Your task to perform on an android device: clear all cookies in the chrome app Image 0: 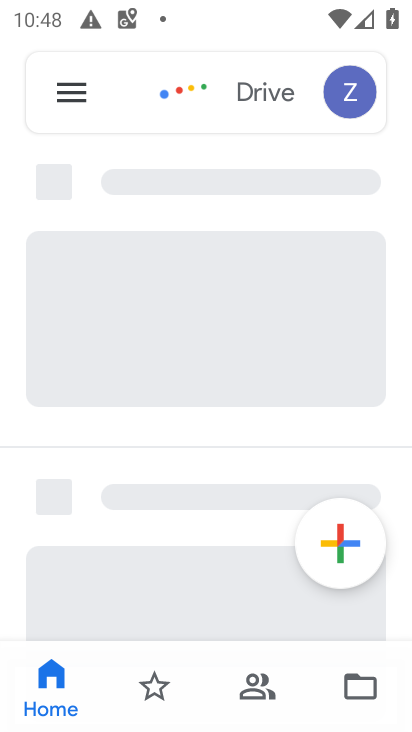
Step 0: press home button
Your task to perform on an android device: clear all cookies in the chrome app Image 1: 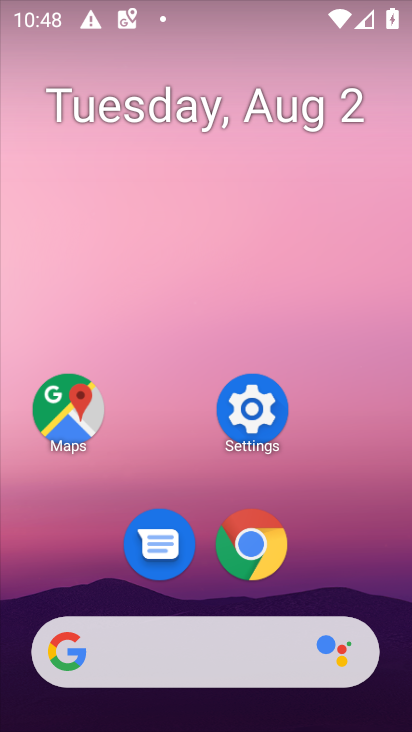
Step 1: click (261, 557)
Your task to perform on an android device: clear all cookies in the chrome app Image 2: 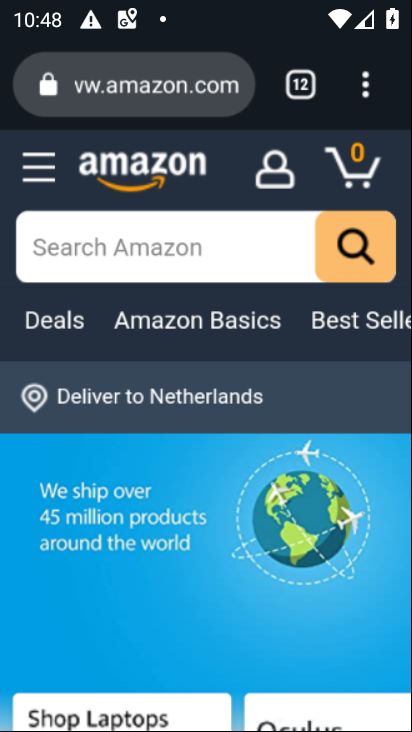
Step 2: drag from (366, 87) to (203, 578)
Your task to perform on an android device: clear all cookies in the chrome app Image 3: 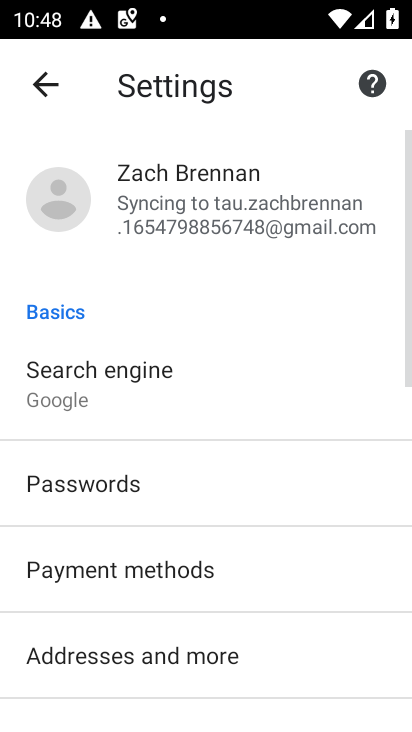
Step 3: drag from (240, 604) to (356, 6)
Your task to perform on an android device: clear all cookies in the chrome app Image 4: 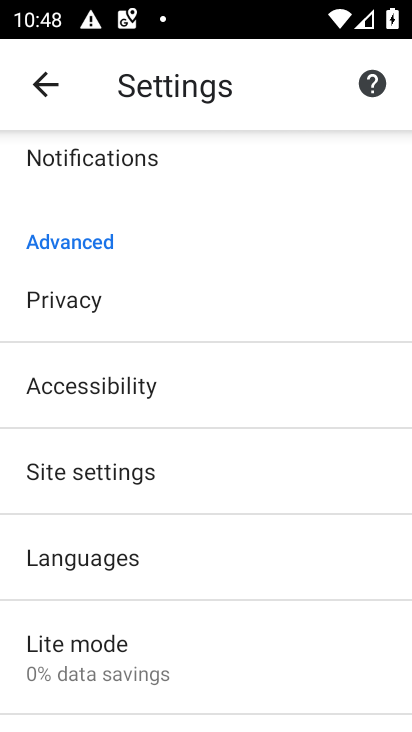
Step 4: click (98, 306)
Your task to perform on an android device: clear all cookies in the chrome app Image 5: 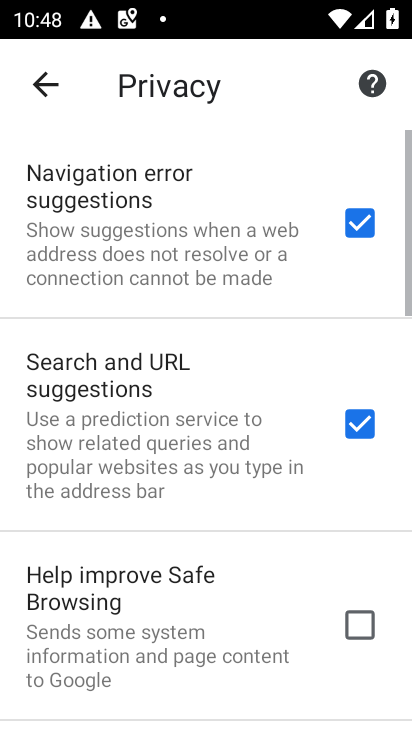
Step 5: drag from (214, 669) to (278, 126)
Your task to perform on an android device: clear all cookies in the chrome app Image 6: 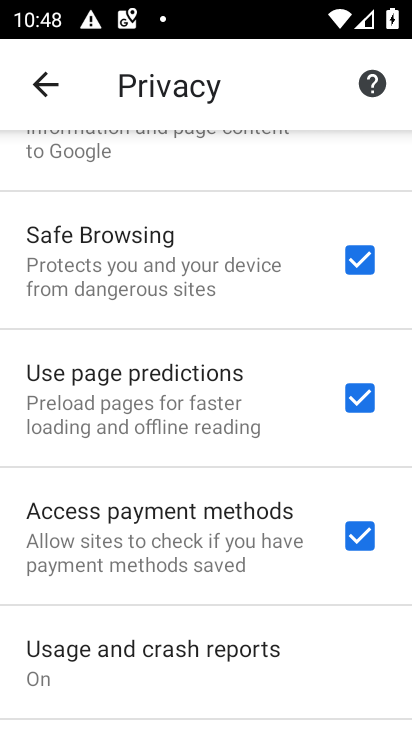
Step 6: drag from (252, 666) to (331, 179)
Your task to perform on an android device: clear all cookies in the chrome app Image 7: 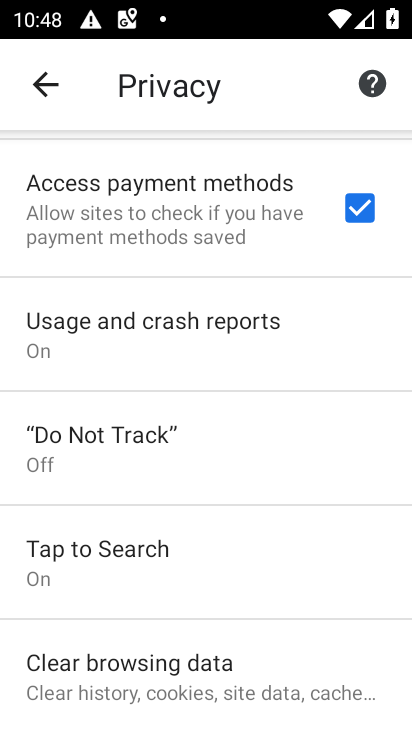
Step 7: drag from (295, 658) to (358, 218)
Your task to perform on an android device: clear all cookies in the chrome app Image 8: 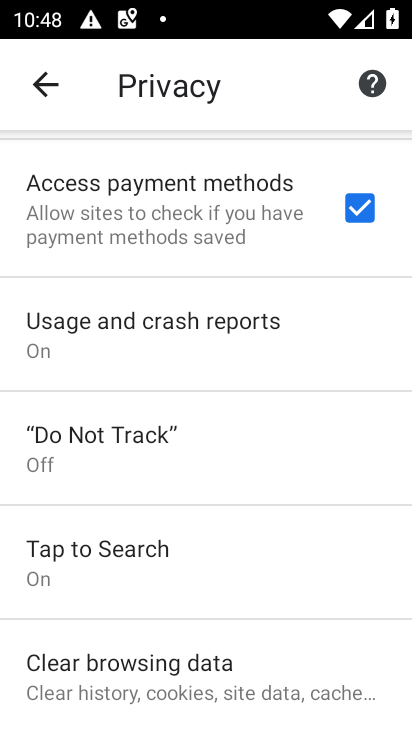
Step 8: click (201, 666)
Your task to perform on an android device: clear all cookies in the chrome app Image 9: 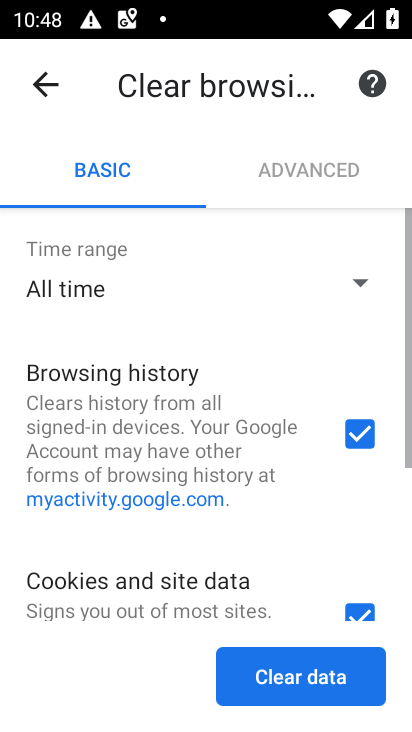
Step 9: click (366, 429)
Your task to perform on an android device: clear all cookies in the chrome app Image 10: 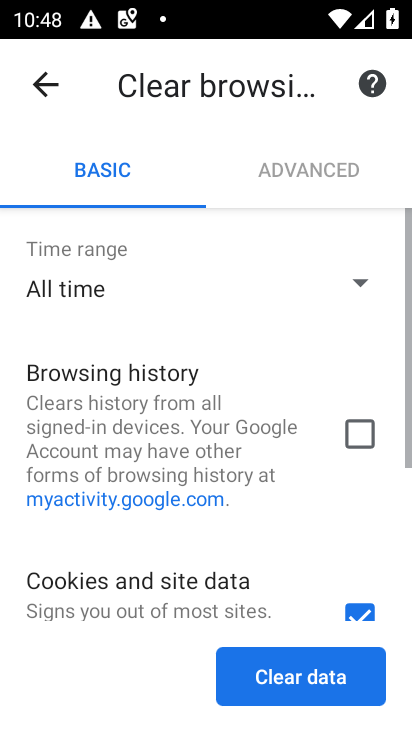
Step 10: drag from (261, 548) to (399, 163)
Your task to perform on an android device: clear all cookies in the chrome app Image 11: 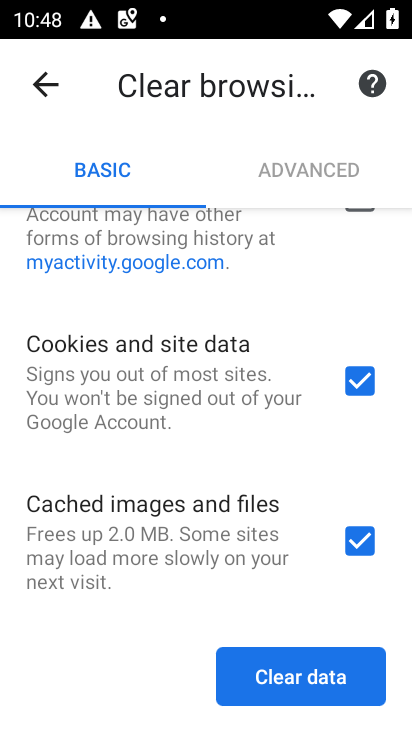
Step 11: click (347, 542)
Your task to perform on an android device: clear all cookies in the chrome app Image 12: 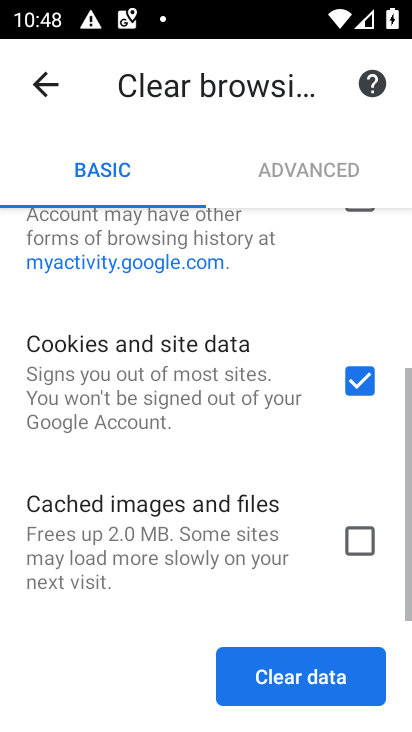
Step 12: click (310, 683)
Your task to perform on an android device: clear all cookies in the chrome app Image 13: 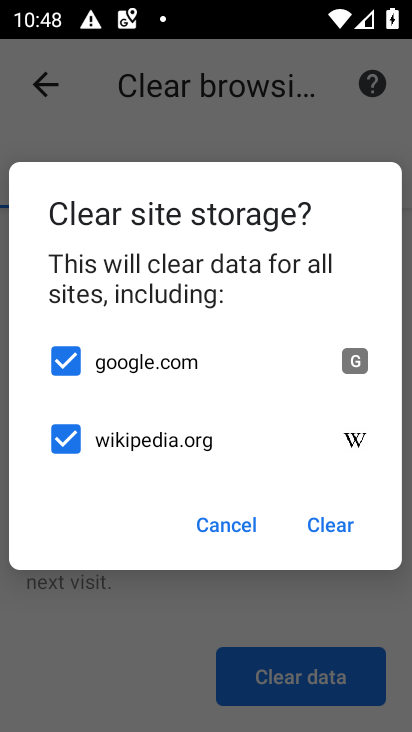
Step 13: click (332, 513)
Your task to perform on an android device: clear all cookies in the chrome app Image 14: 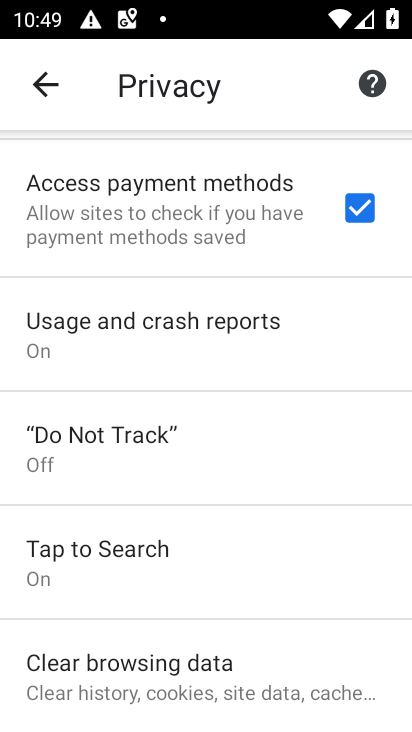
Step 14: task complete